Your task to perform on an android device: Open settings Image 0: 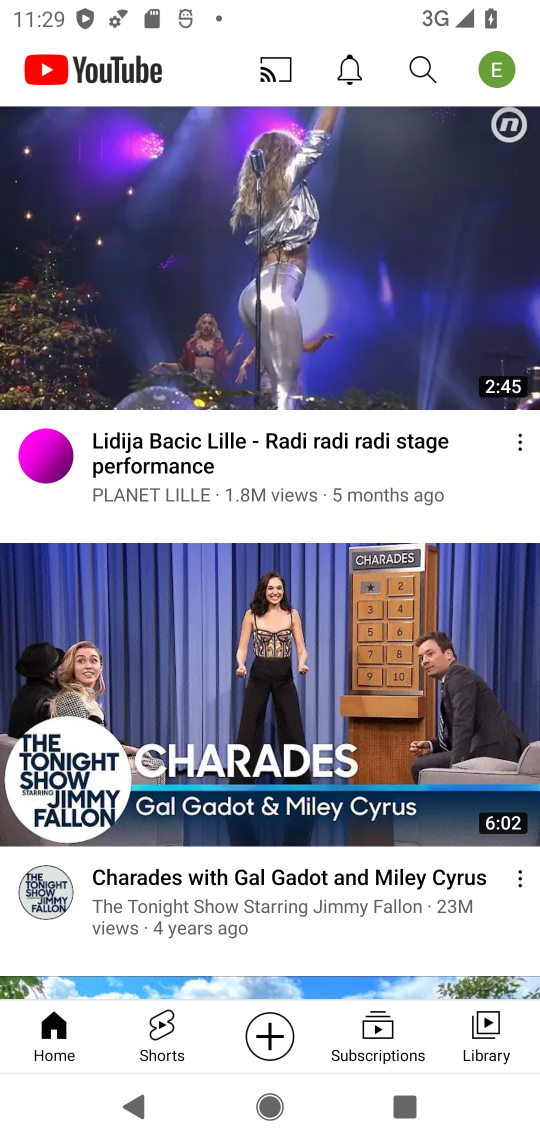
Step 0: press home button
Your task to perform on an android device: Open settings Image 1: 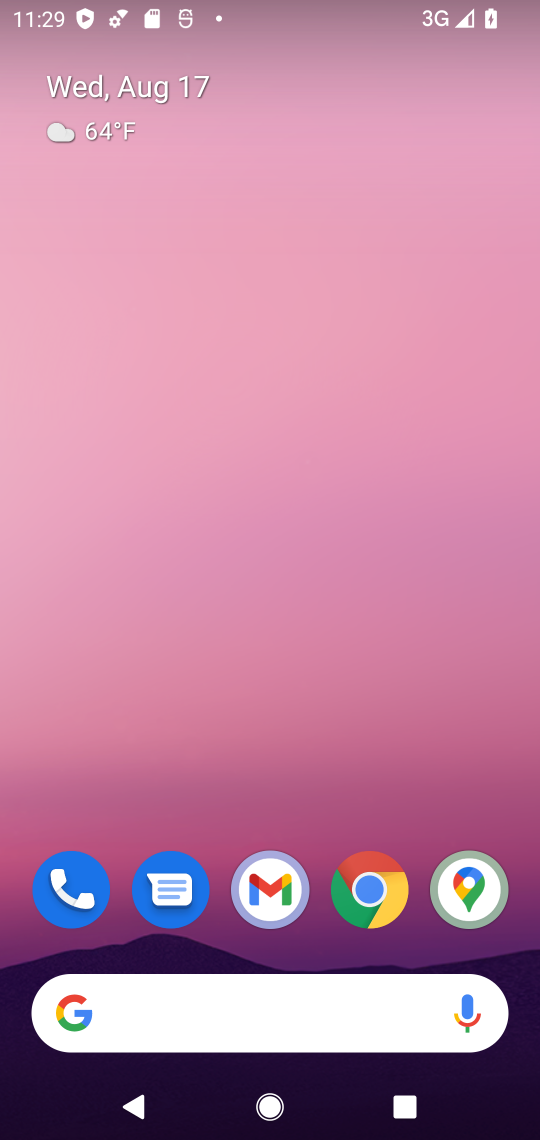
Step 1: drag from (267, 751) to (345, 9)
Your task to perform on an android device: Open settings Image 2: 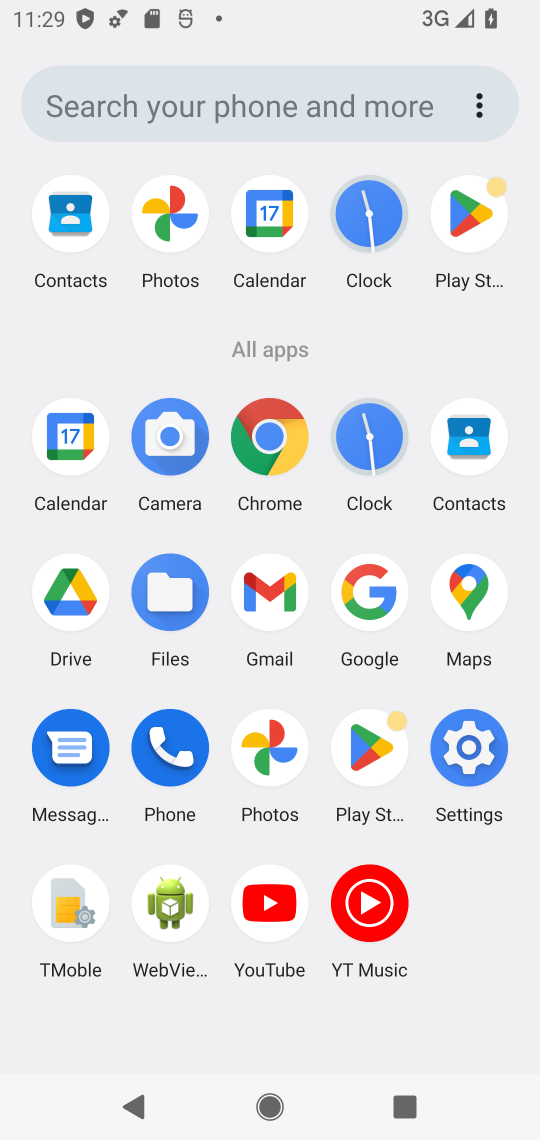
Step 2: click (465, 744)
Your task to perform on an android device: Open settings Image 3: 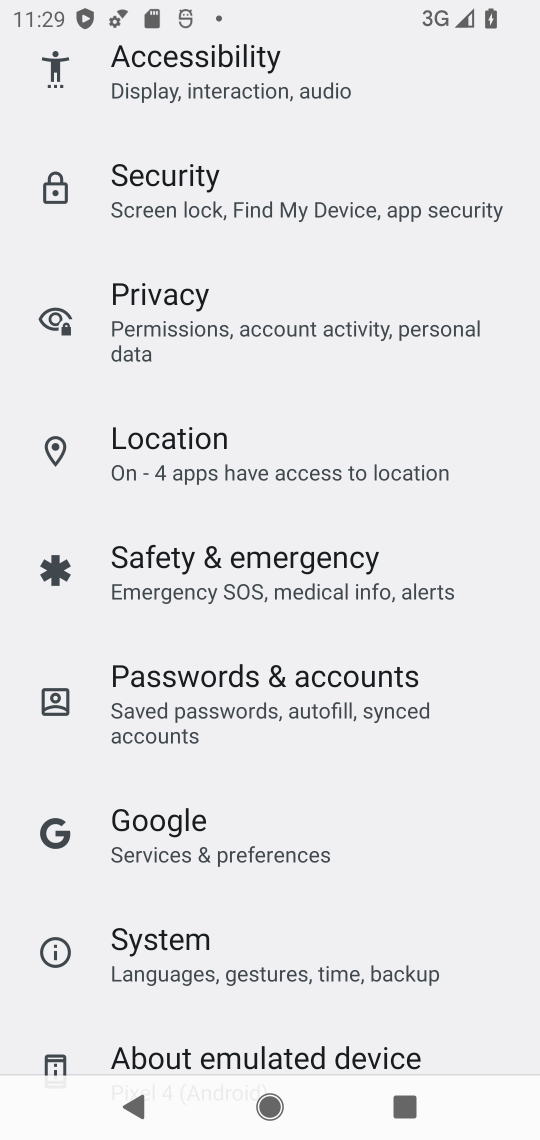
Step 3: task complete